Your task to perform on an android device: Play the last video I watched on Youtube Image 0: 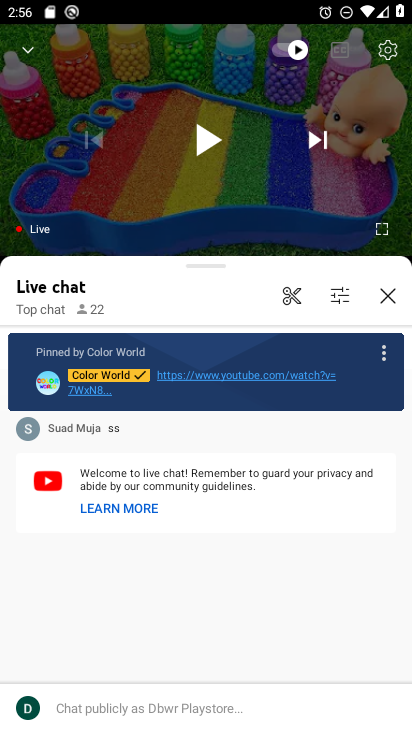
Step 0: press home button
Your task to perform on an android device: Play the last video I watched on Youtube Image 1: 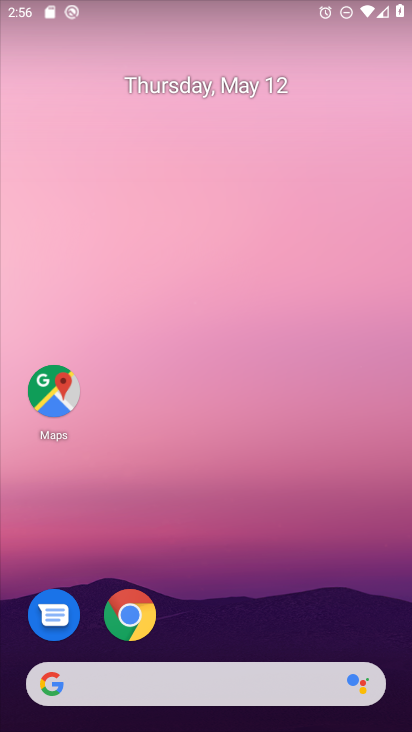
Step 1: drag from (198, 677) to (338, 8)
Your task to perform on an android device: Play the last video I watched on Youtube Image 2: 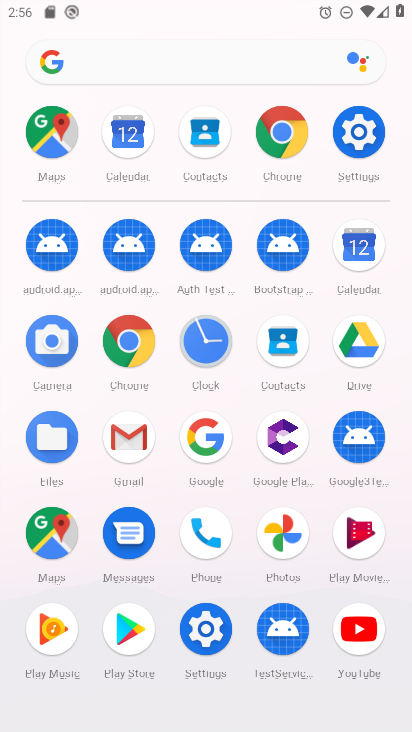
Step 2: click (345, 619)
Your task to perform on an android device: Play the last video I watched on Youtube Image 3: 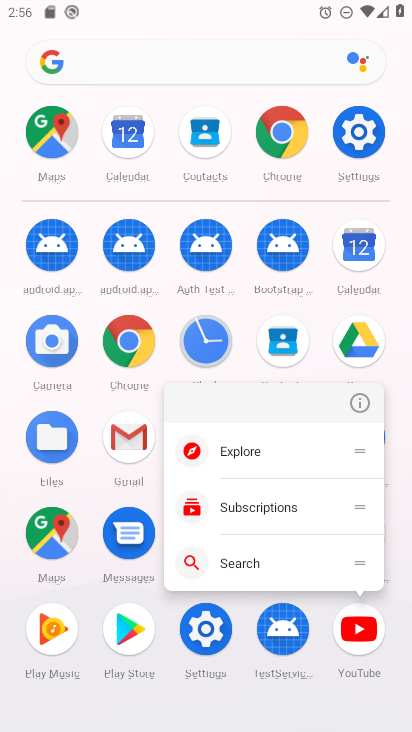
Step 3: click (344, 626)
Your task to perform on an android device: Play the last video I watched on Youtube Image 4: 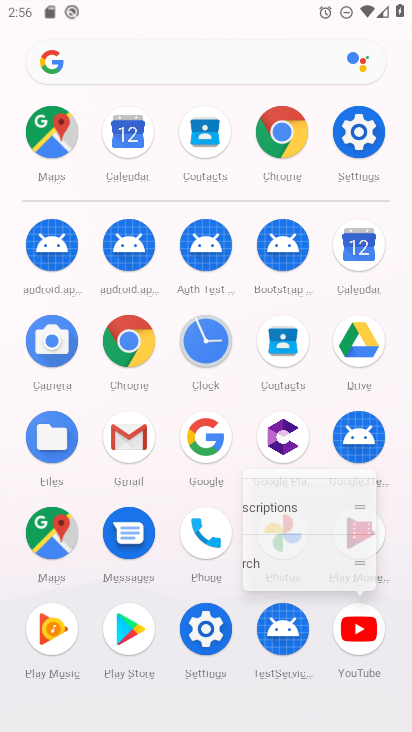
Step 4: click (347, 629)
Your task to perform on an android device: Play the last video I watched on Youtube Image 5: 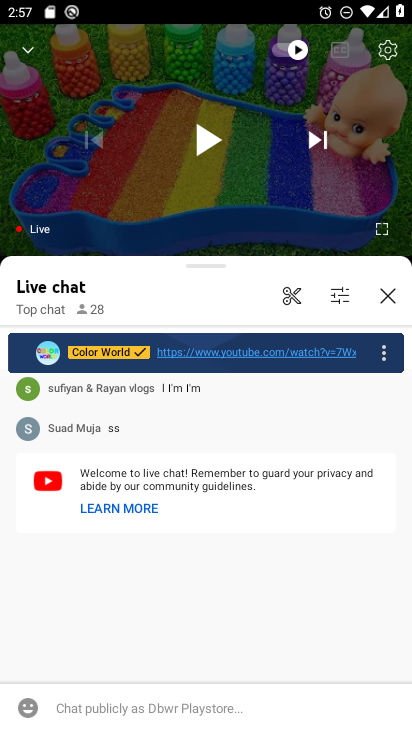
Step 5: click (210, 139)
Your task to perform on an android device: Play the last video I watched on Youtube Image 6: 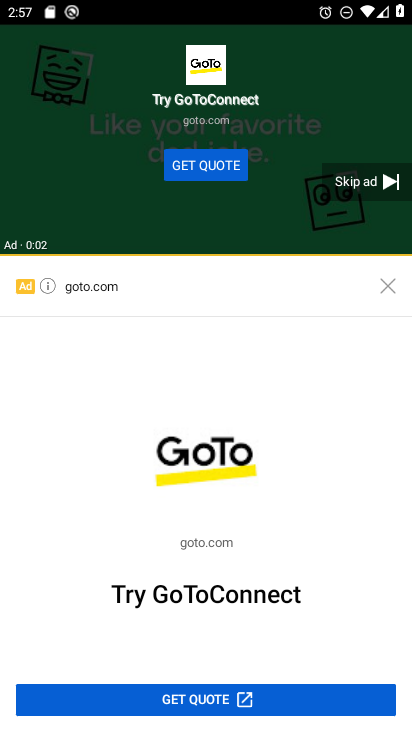
Step 6: click (395, 182)
Your task to perform on an android device: Play the last video I watched on Youtube Image 7: 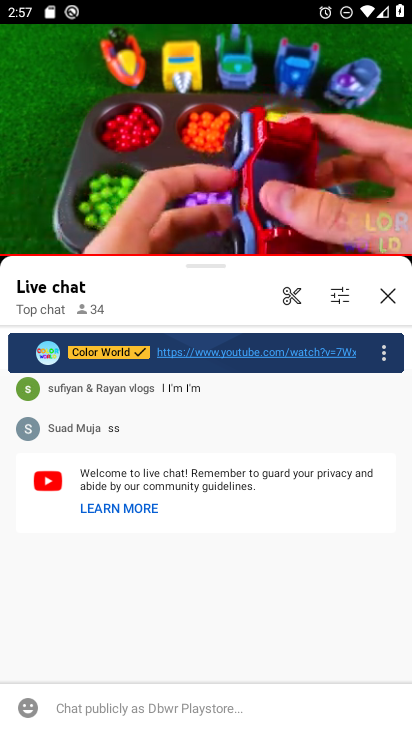
Step 7: task complete